Your task to perform on an android device: Go to battery settings Image 0: 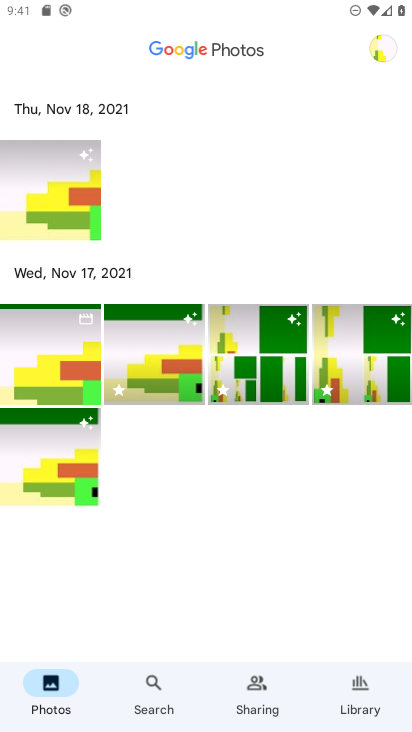
Step 0: press home button
Your task to perform on an android device: Go to battery settings Image 1: 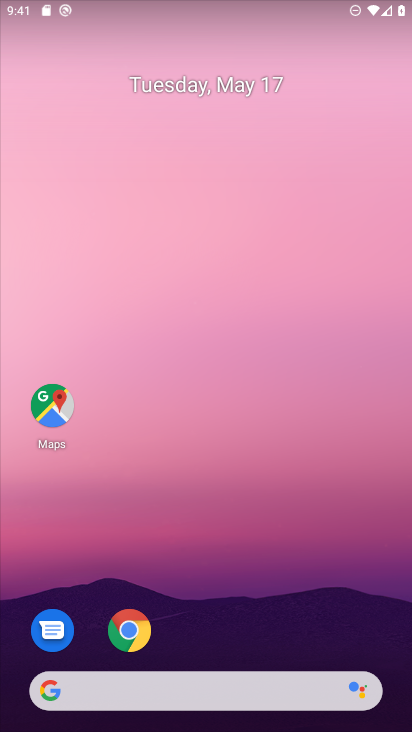
Step 1: drag from (335, 609) to (340, 110)
Your task to perform on an android device: Go to battery settings Image 2: 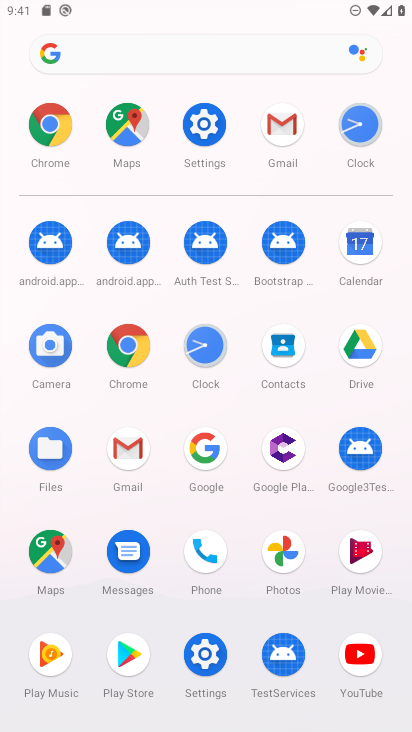
Step 2: click (203, 137)
Your task to perform on an android device: Go to battery settings Image 3: 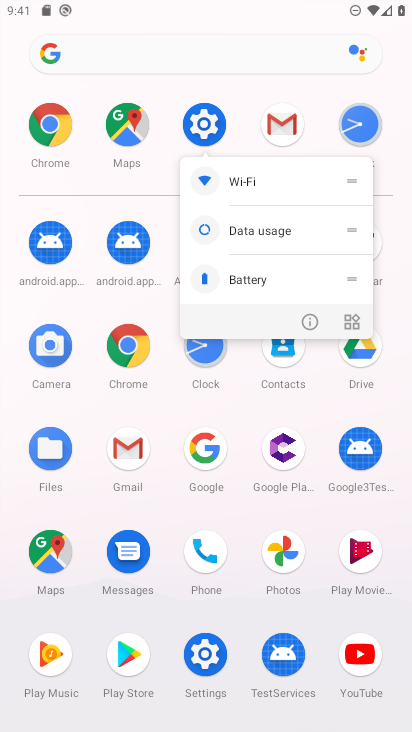
Step 3: click (203, 137)
Your task to perform on an android device: Go to battery settings Image 4: 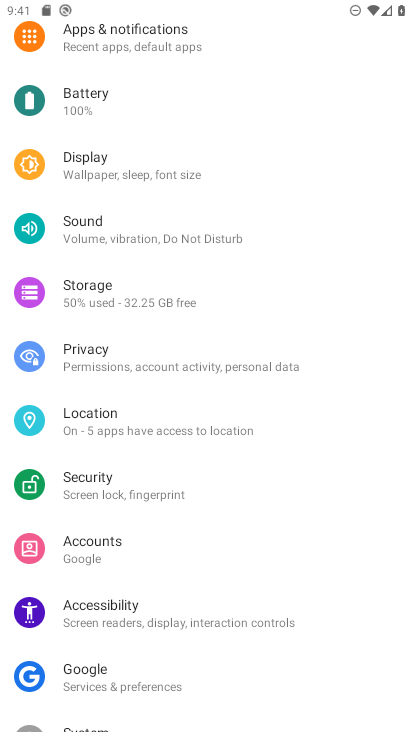
Step 4: drag from (338, 531) to (351, 430)
Your task to perform on an android device: Go to battery settings Image 5: 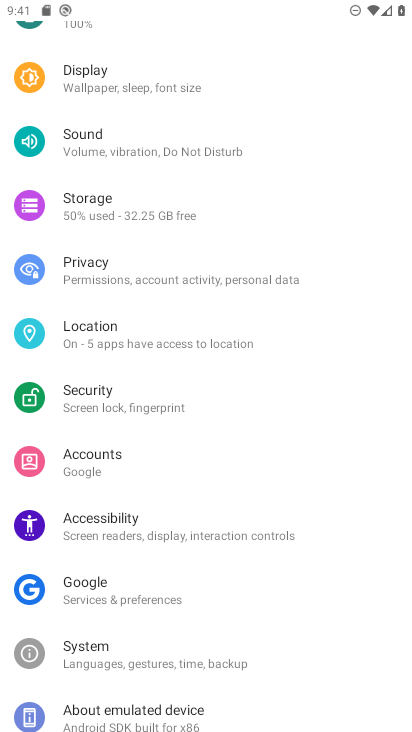
Step 5: drag from (348, 606) to (352, 458)
Your task to perform on an android device: Go to battery settings Image 6: 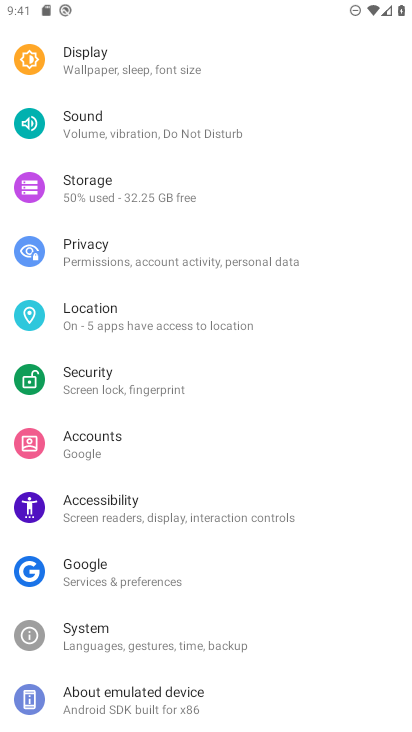
Step 6: drag from (336, 592) to (343, 485)
Your task to perform on an android device: Go to battery settings Image 7: 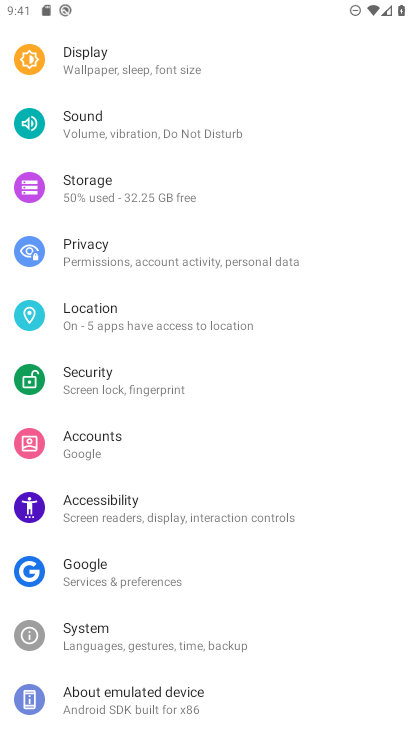
Step 7: drag from (320, 655) to (307, 530)
Your task to perform on an android device: Go to battery settings Image 8: 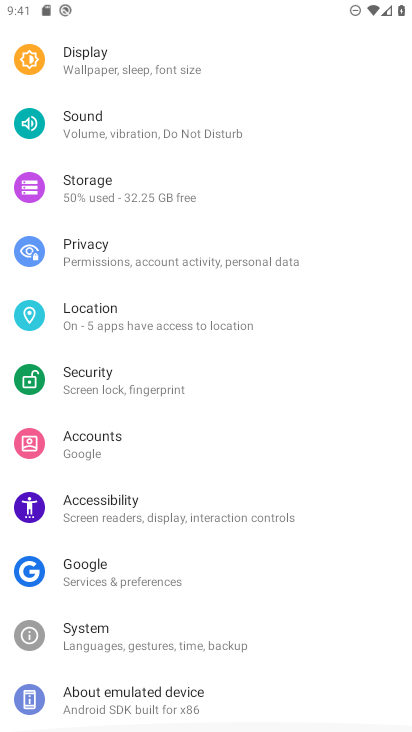
Step 8: drag from (331, 388) to (327, 480)
Your task to perform on an android device: Go to battery settings Image 9: 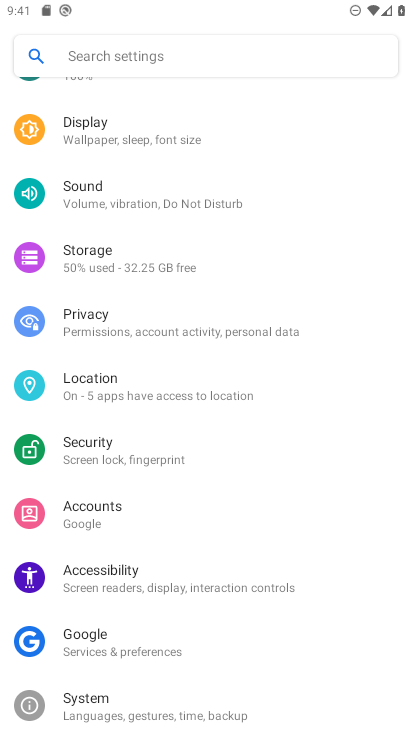
Step 9: drag from (343, 345) to (319, 469)
Your task to perform on an android device: Go to battery settings Image 10: 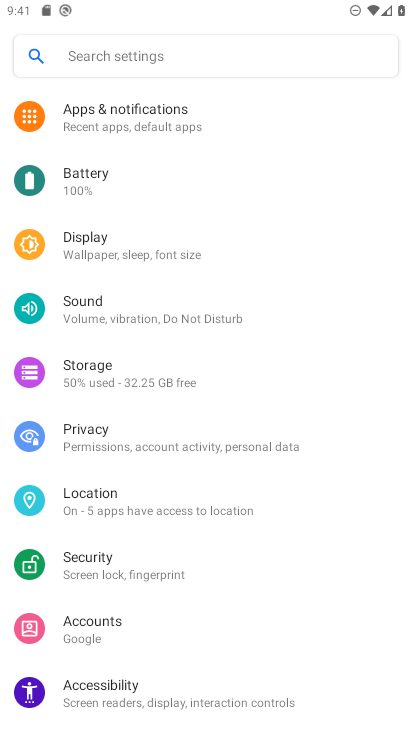
Step 10: drag from (328, 299) to (313, 432)
Your task to perform on an android device: Go to battery settings Image 11: 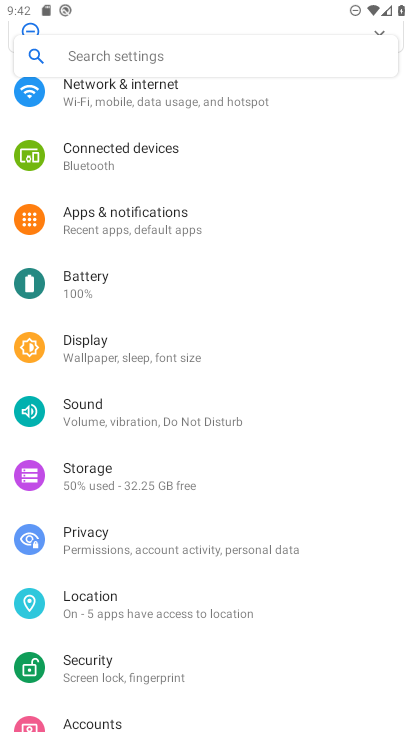
Step 11: drag from (311, 269) to (307, 399)
Your task to perform on an android device: Go to battery settings Image 12: 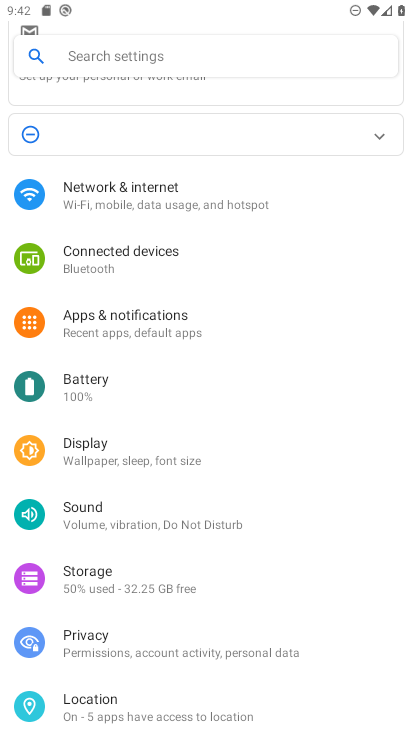
Step 12: click (159, 380)
Your task to perform on an android device: Go to battery settings Image 13: 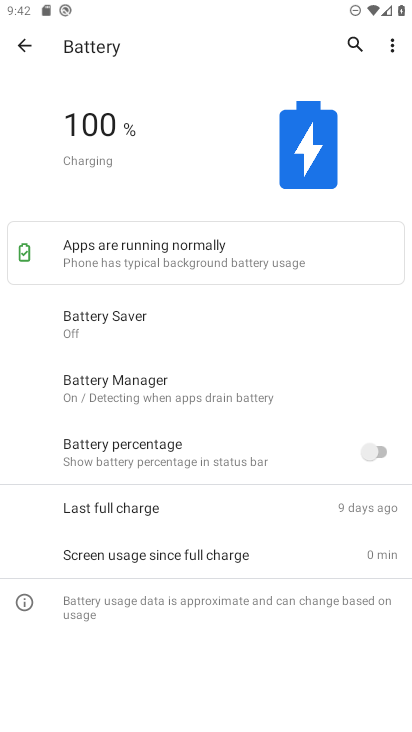
Step 13: task complete